Your task to perform on an android device: When is my next meeting? Image 0: 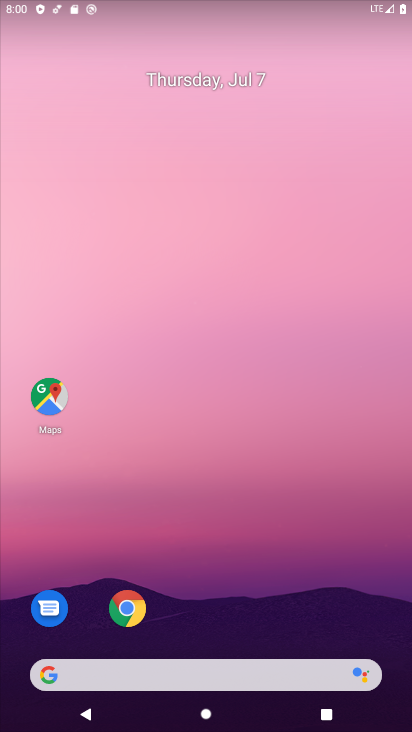
Step 0: drag from (388, 643) to (354, 173)
Your task to perform on an android device: When is my next meeting? Image 1: 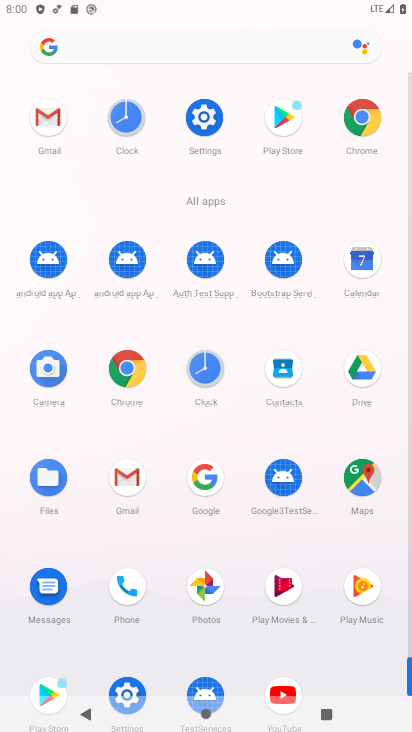
Step 1: click (359, 262)
Your task to perform on an android device: When is my next meeting? Image 2: 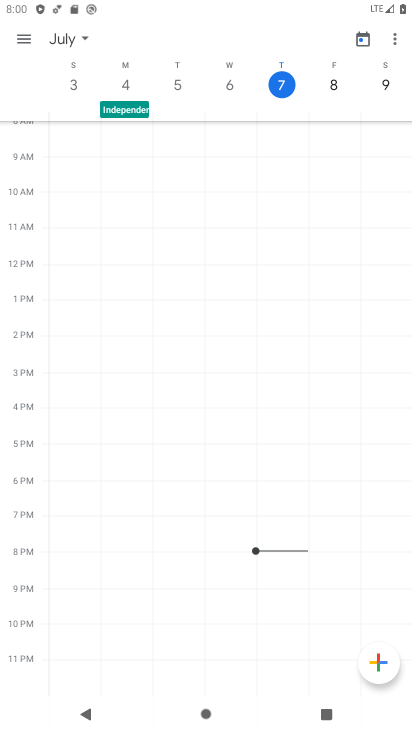
Step 2: click (22, 37)
Your task to perform on an android device: When is my next meeting? Image 3: 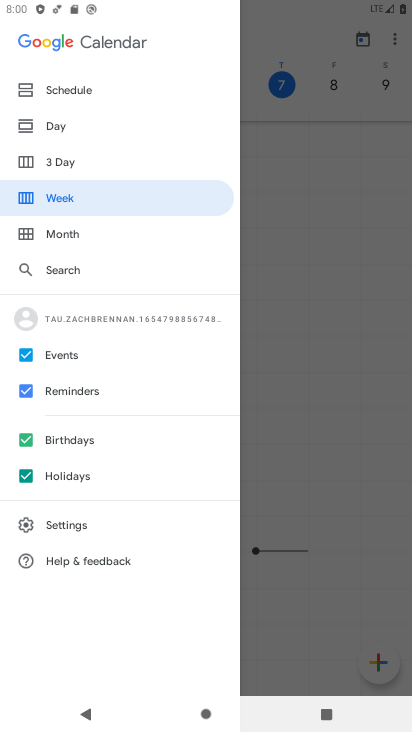
Step 3: click (72, 81)
Your task to perform on an android device: When is my next meeting? Image 4: 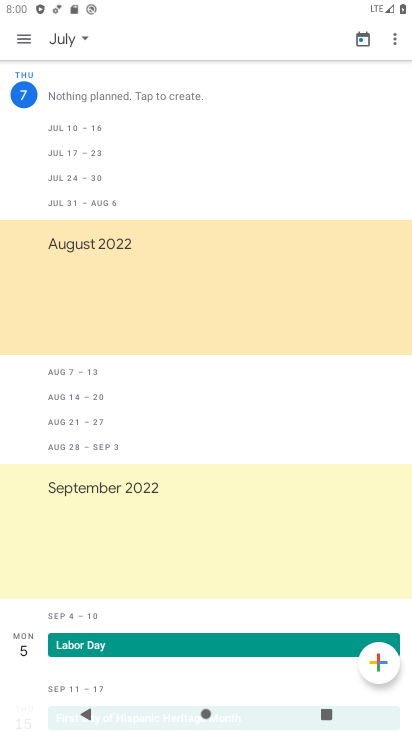
Step 4: click (25, 40)
Your task to perform on an android device: When is my next meeting? Image 5: 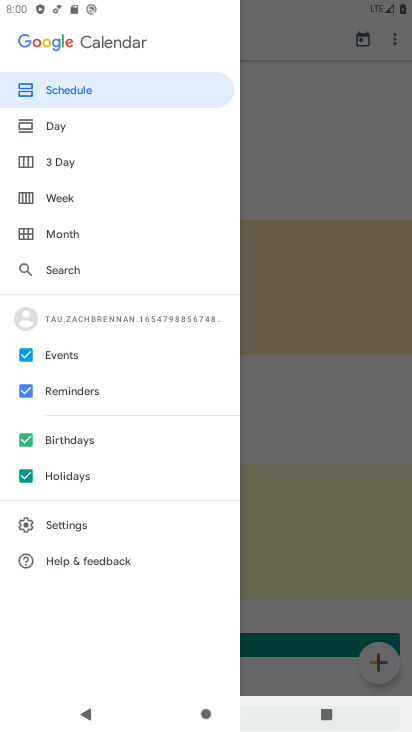
Step 5: click (69, 92)
Your task to perform on an android device: When is my next meeting? Image 6: 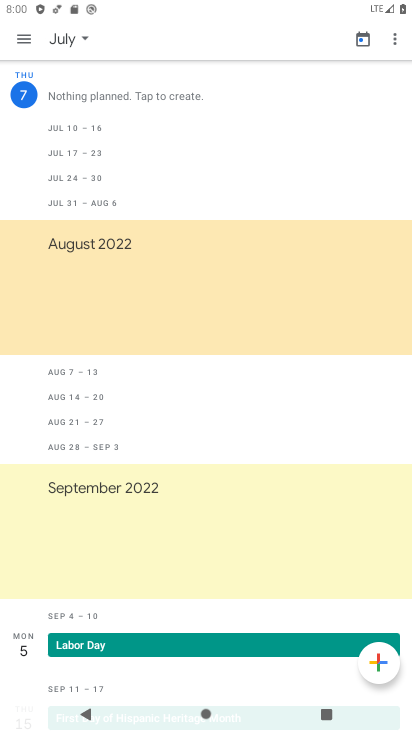
Step 6: task complete